Your task to perform on an android device: turn on improve location accuracy Image 0: 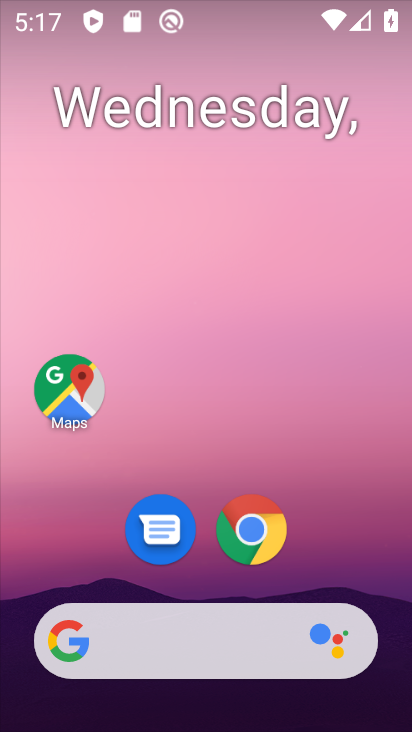
Step 0: drag from (340, 527) to (217, 9)
Your task to perform on an android device: turn on improve location accuracy Image 1: 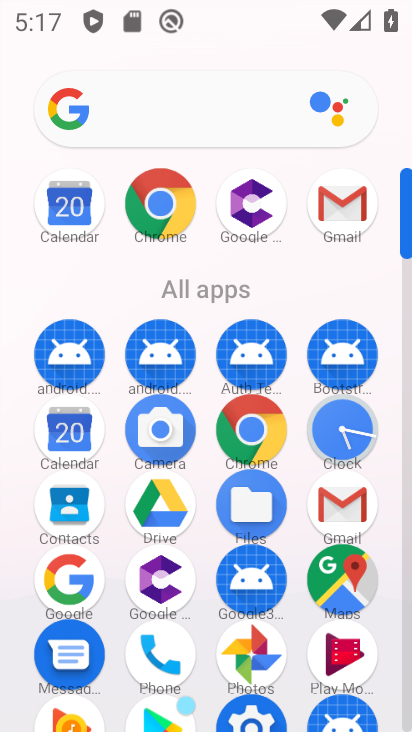
Step 1: drag from (16, 503) to (11, 225)
Your task to perform on an android device: turn on improve location accuracy Image 2: 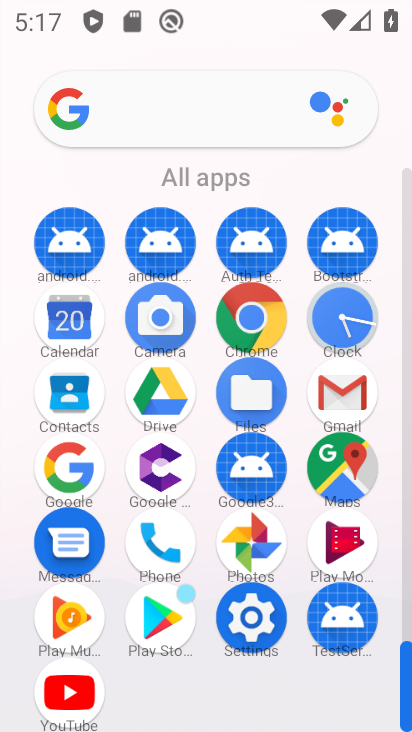
Step 2: click (248, 624)
Your task to perform on an android device: turn on improve location accuracy Image 3: 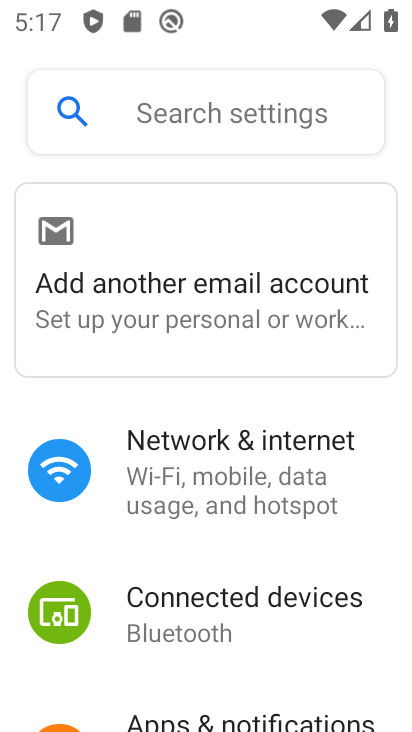
Step 3: drag from (360, 605) to (358, 222)
Your task to perform on an android device: turn on improve location accuracy Image 4: 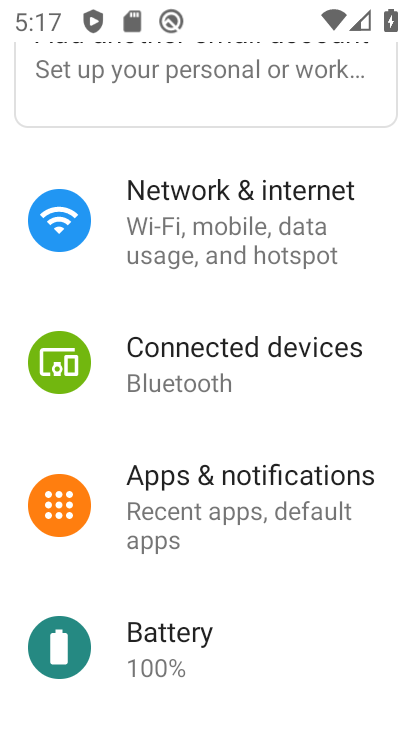
Step 4: drag from (312, 527) to (305, 232)
Your task to perform on an android device: turn on improve location accuracy Image 5: 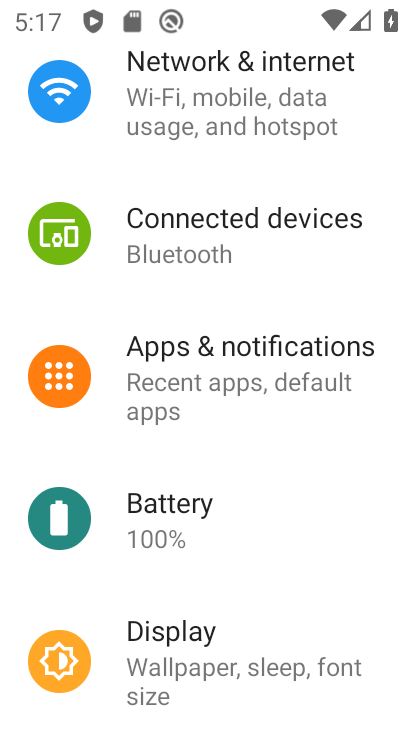
Step 5: drag from (285, 502) to (310, 74)
Your task to perform on an android device: turn on improve location accuracy Image 6: 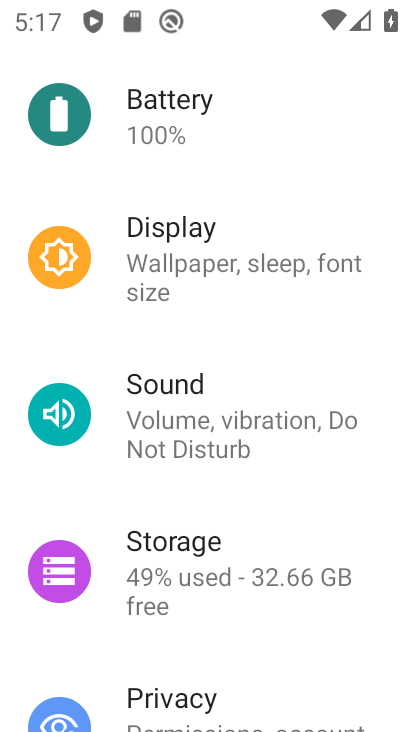
Step 6: drag from (256, 500) to (270, 140)
Your task to perform on an android device: turn on improve location accuracy Image 7: 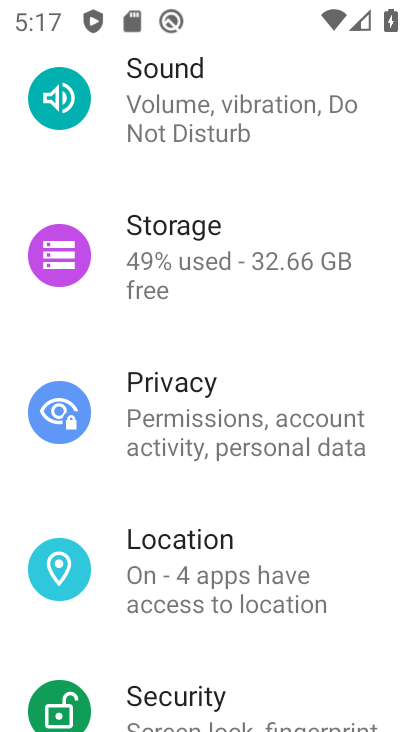
Step 7: click (256, 591)
Your task to perform on an android device: turn on improve location accuracy Image 8: 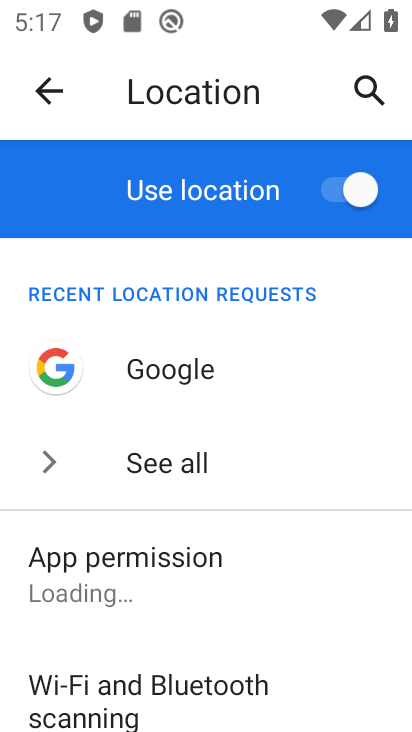
Step 8: drag from (263, 624) to (242, 258)
Your task to perform on an android device: turn on improve location accuracy Image 9: 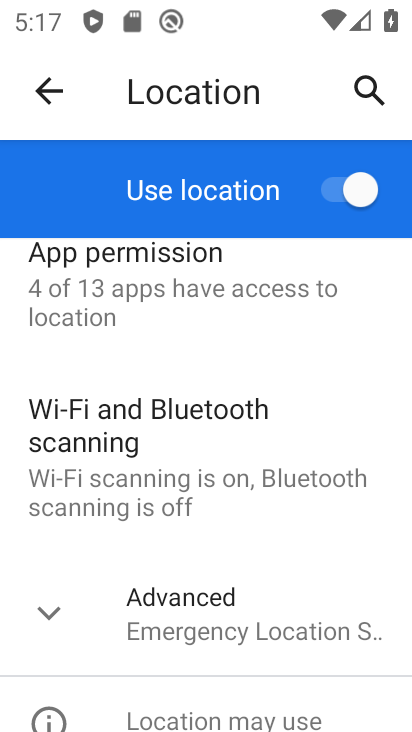
Step 9: click (6, 607)
Your task to perform on an android device: turn on improve location accuracy Image 10: 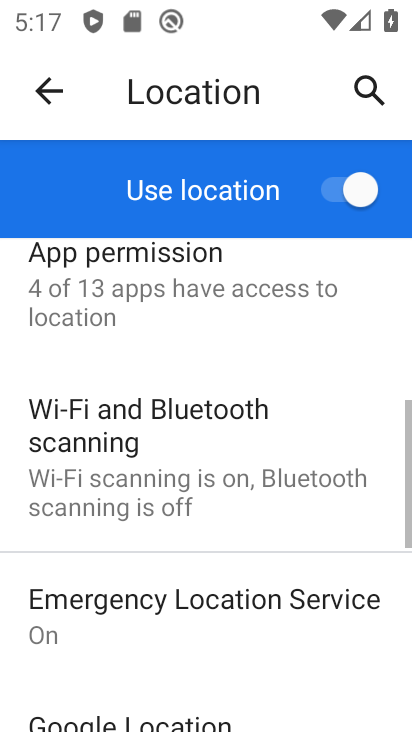
Step 10: drag from (147, 610) to (211, 277)
Your task to perform on an android device: turn on improve location accuracy Image 11: 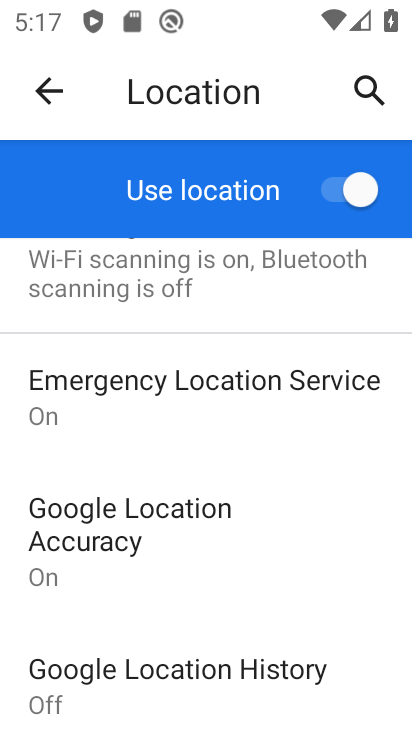
Step 11: click (162, 538)
Your task to perform on an android device: turn on improve location accuracy Image 12: 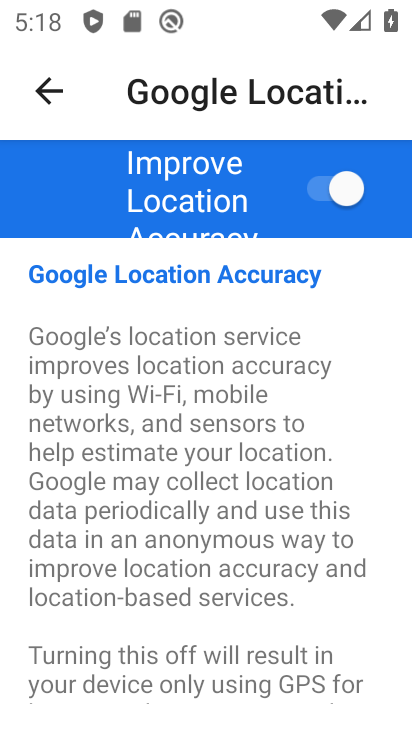
Step 12: task complete